Your task to perform on an android device: Open the calendar and show me this week's events? Image 0: 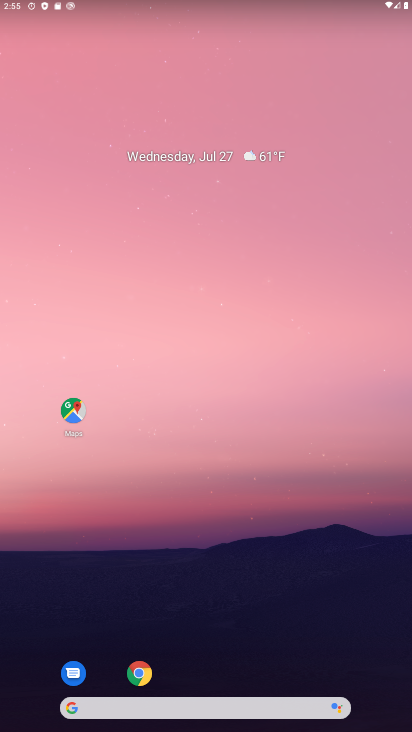
Step 0: drag from (30, 693) to (239, 25)
Your task to perform on an android device: Open the calendar and show me this week's events? Image 1: 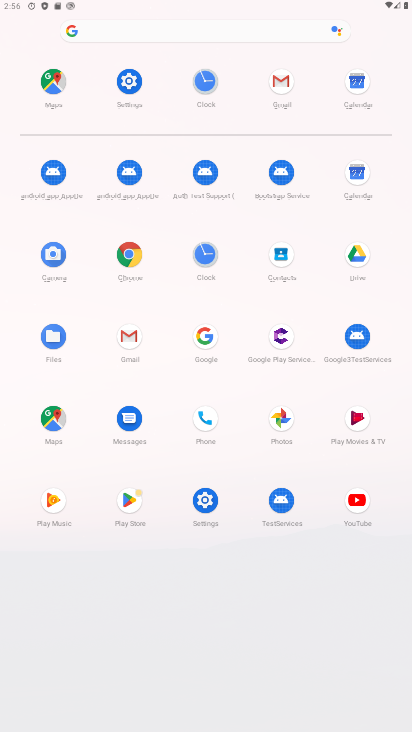
Step 1: click (270, 252)
Your task to perform on an android device: Open the calendar and show me this week's events? Image 2: 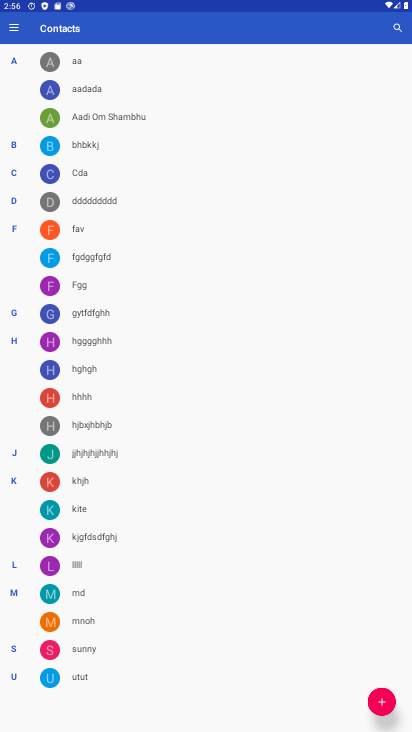
Step 2: press home button
Your task to perform on an android device: Open the calendar and show me this week's events? Image 3: 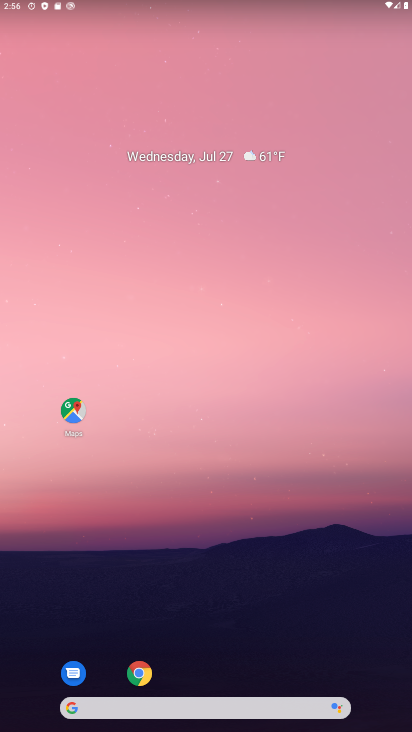
Step 3: drag from (75, 588) to (335, 106)
Your task to perform on an android device: Open the calendar and show me this week's events? Image 4: 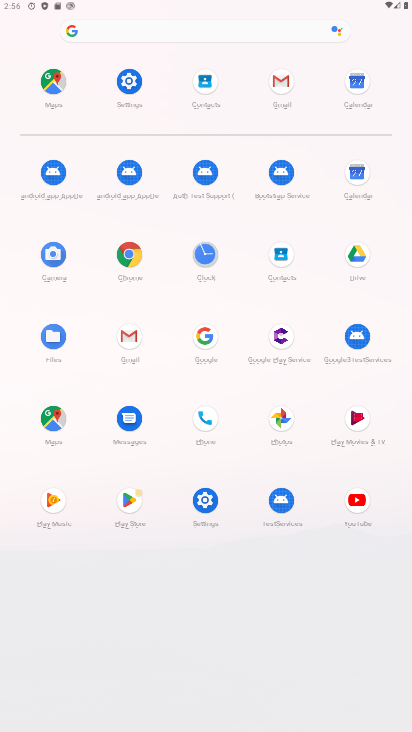
Step 4: click (352, 166)
Your task to perform on an android device: Open the calendar and show me this week's events? Image 5: 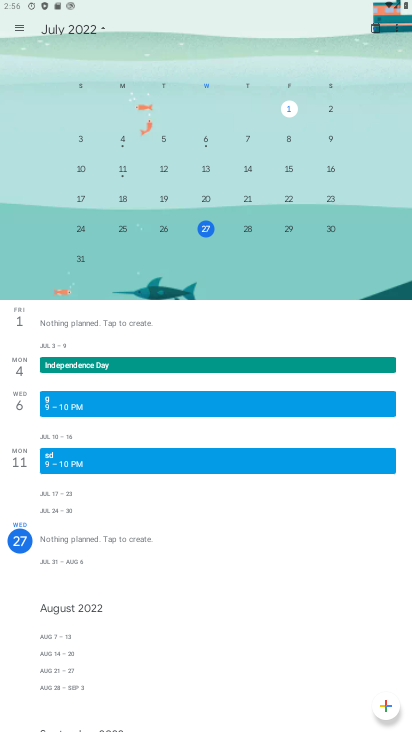
Step 5: task complete